Your task to perform on an android device: Open Google Maps Image 0: 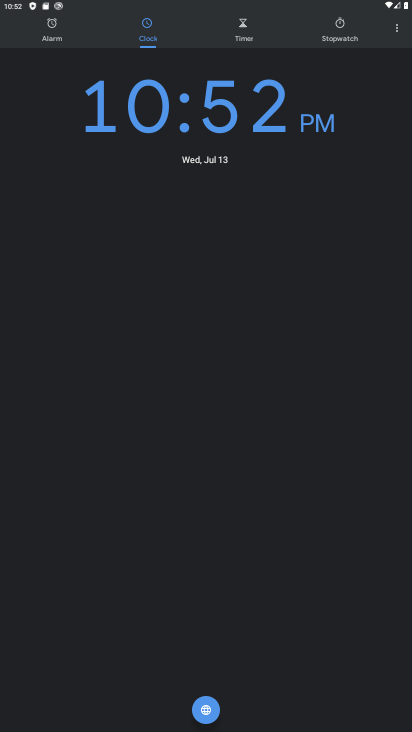
Step 0: press home button
Your task to perform on an android device: Open Google Maps Image 1: 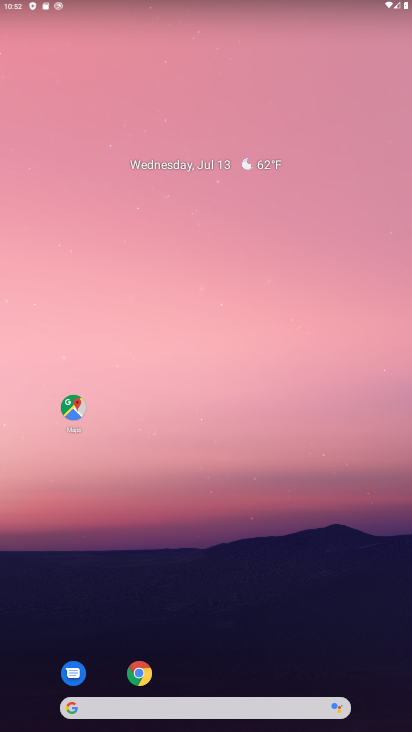
Step 1: drag from (201, 663) to (240, 111)
Your task to perform on an android device: Open Google Maps Image 2: 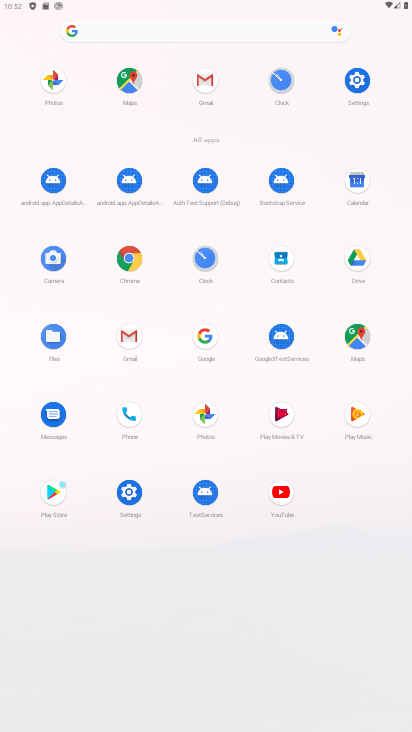
Step 2: click (359, 339)
Your task to perform on an android device: Open Google Maps Image 3: 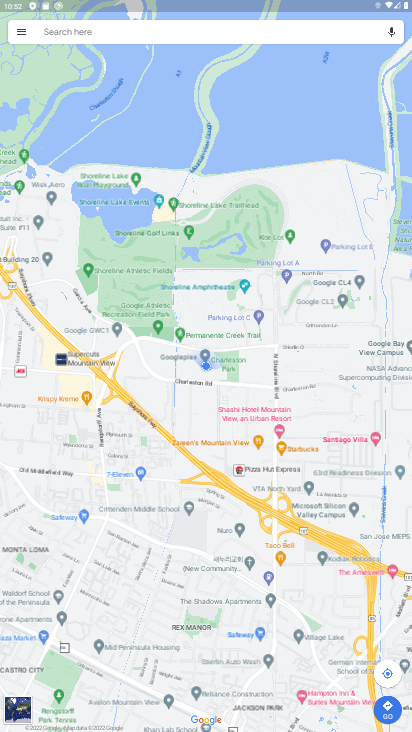
Step 3: task complete